Your task to perform on an android device: Open the Play Movies app and select the watchlist tab. Image 0: 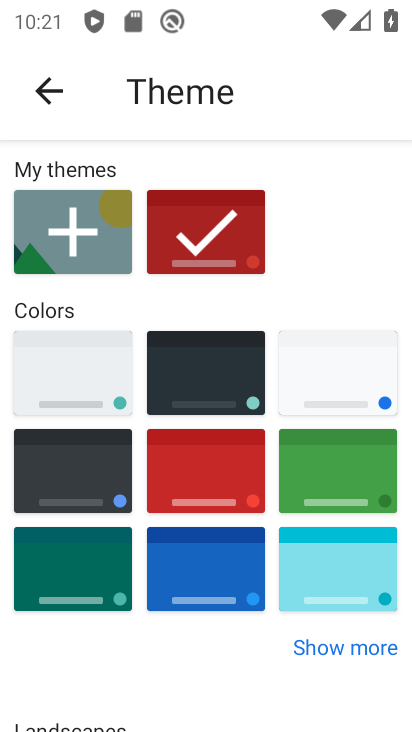
Step 0: press home button
Your task to perform on an android device: Open the Play Movies app and select the watchlist tab. Image 1: 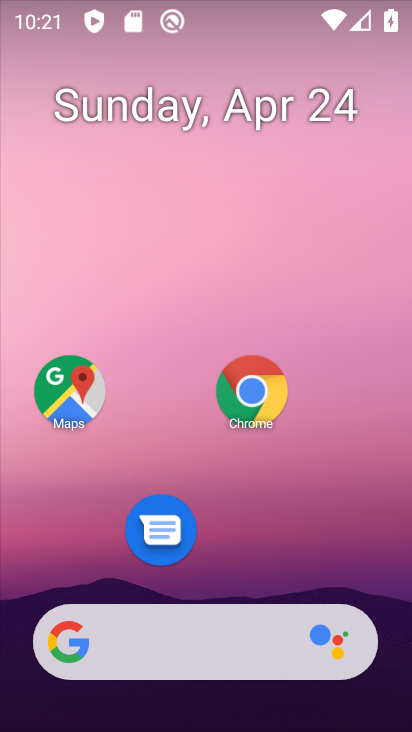
Step 1: drag from (217, 572) to (178, 163)
Your task to perform on an android device: Open the Play Movies app and select the watchlist tab. Image 2: 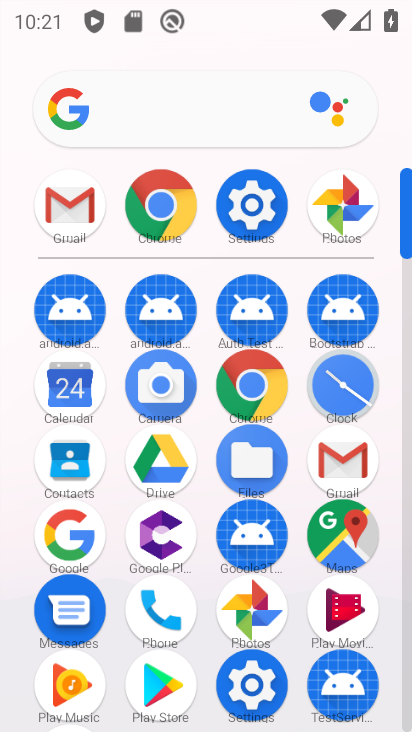
Step 2: click (320, 618)
Your task to perform on an android device: Open the Play Movies app and select the watchlist tab. Image 3: 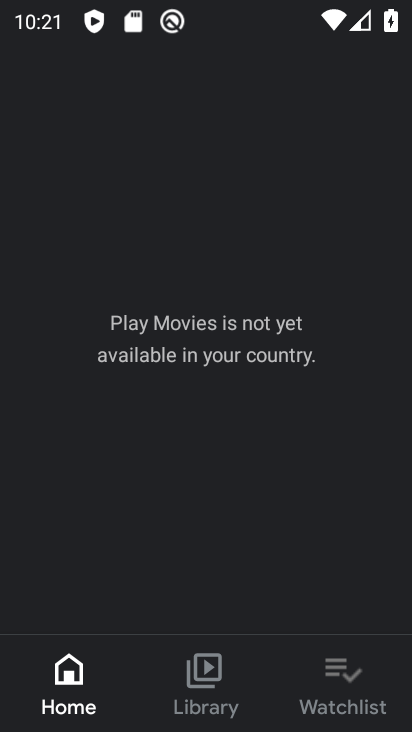
Step 3: click (361, 687)
Your task to perform on an android device: Open the Play Movies app and select the watchlist tab. Image 4: 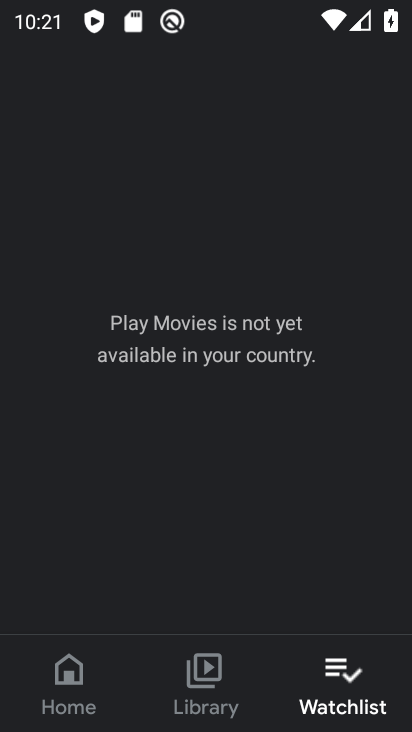
Step 4: task complete